Your task to perform on an android device: Open calendar and show me the second week of next month Image 0: 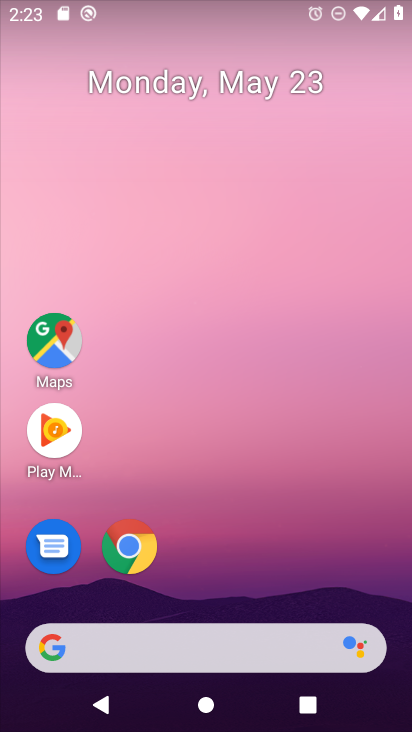
Step 0: drag from (262, 583) to (262, 110)
Your task to perform on an android device: Open calendar and show me the second week of next month Image 1: 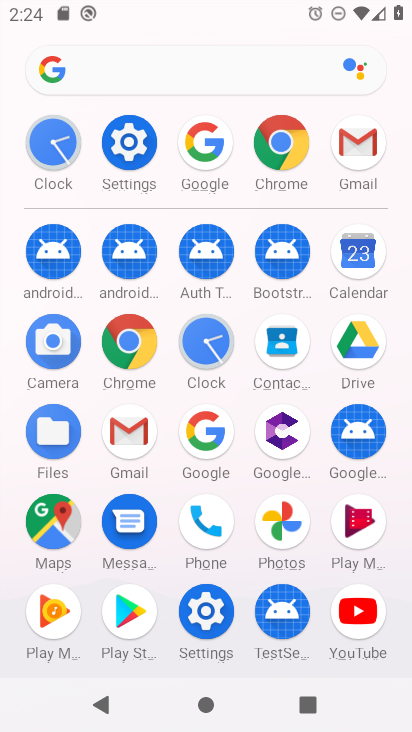
Step 1: click (371, 262)
Your task to perform on an android device: Open calendar and show me the second week of next month Image 2: 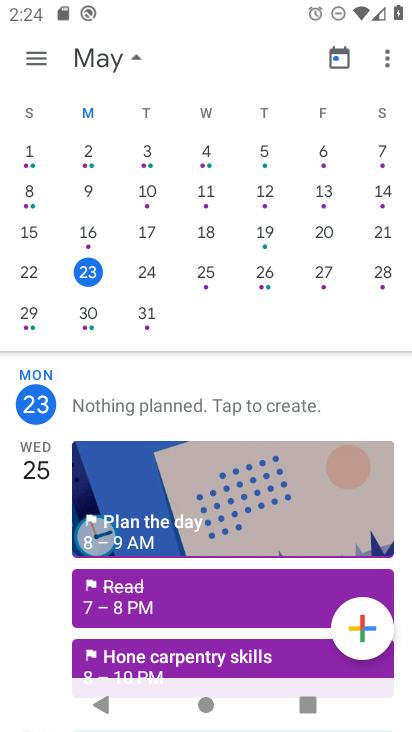
Step 2: drag from (366, 263) to (2, 282)
Your task to perform on an android device: Open calendar and show me the second week of next month Image 3: 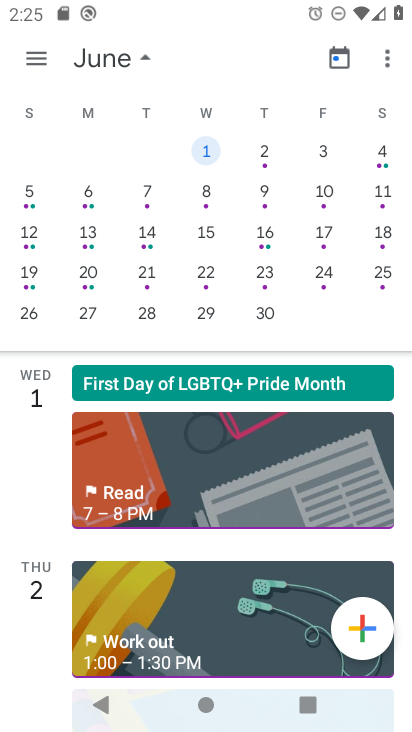
Step 3: click (34, 238)
Your task to perform on an android device: Open calendar and show me the second week of next month Image 4: 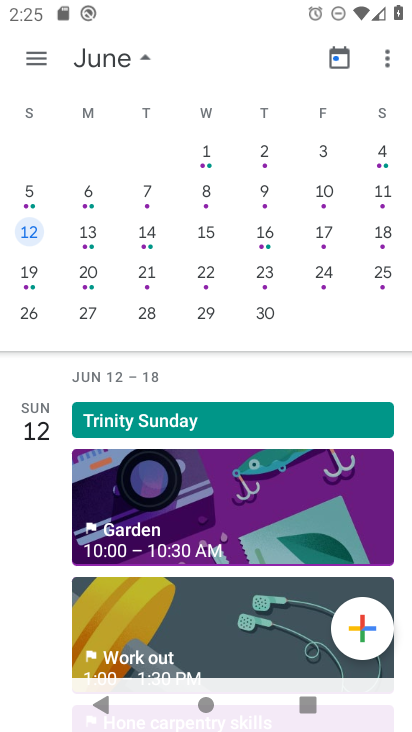
Step 4: task complete